Your task to perform on an android device: Open calendar and show me the fourth week of next month Image 0: 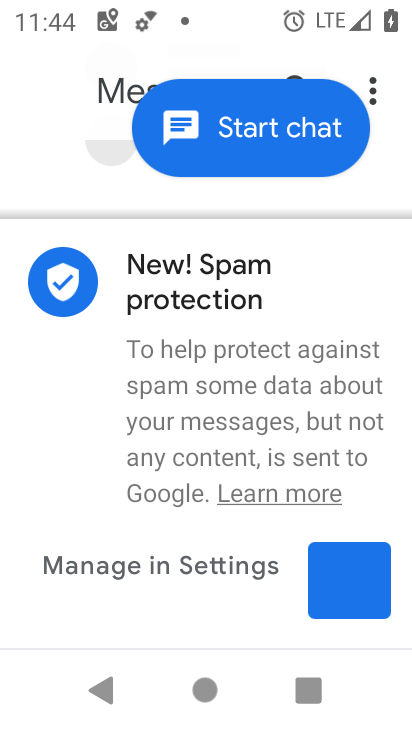
Step 0: press home button
Your task to perform on an android device: Open calendar and show me the fourth week of next month Image 1: 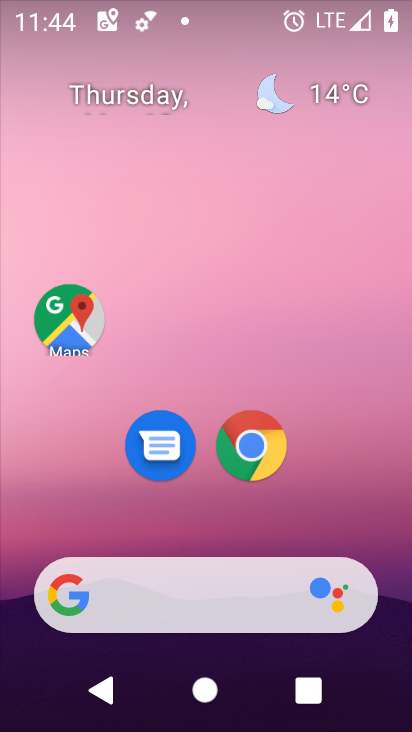
Step 1: drag from (229, 487) to (238, 153)
Your task to perform on an android device: Open calendar and show me the fourth week of next month Image 2: 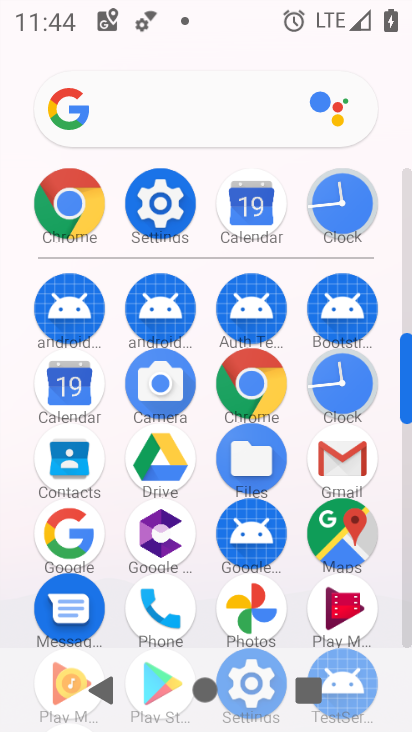
Step 2: click (60, 373)
Your task to perform on an android device: Open calendar and show me the fourth week of next month Image 3: 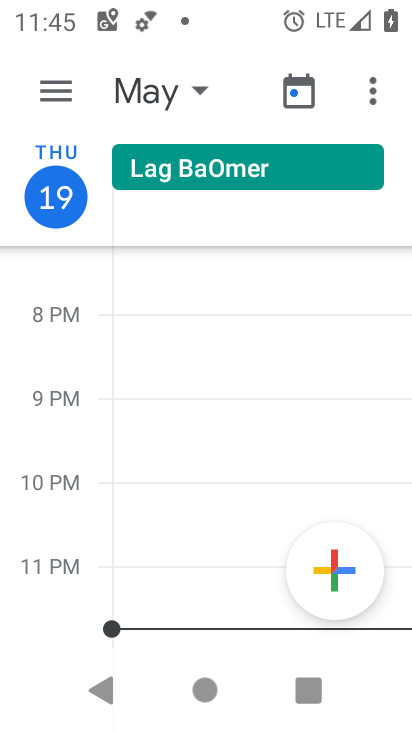
Step 3: click (214, 86)
Your task to perform on an android device: Open calendar and show me the fourth week of next month Image 4: 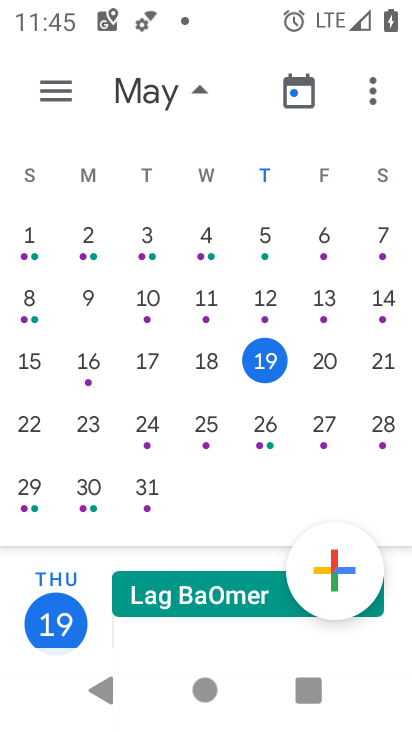
Step 4: drag from (300, 313) to (15, 298)
Your task to perform on an android device: Open calendar and show me the fourth week of next month Image 5: 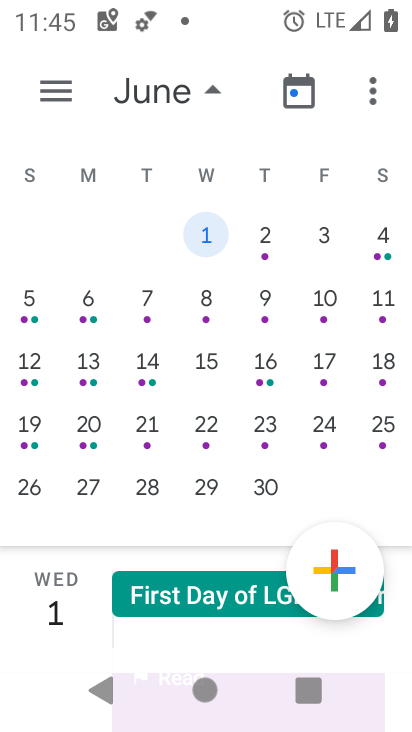
Step 5: click (34, 425)
Your task to perform on an android device: Open calendar and show me the fourth week of next month Image 6: 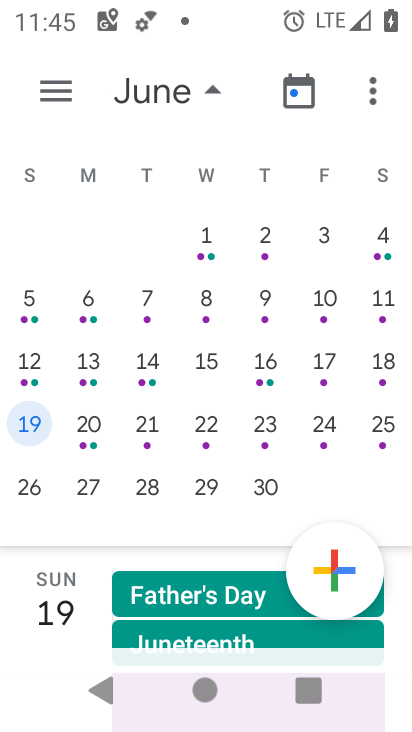
Step 6: click (194, 99)
Your task to perform on an android device: Open calendar and show me the fourth week of next month Image 7: 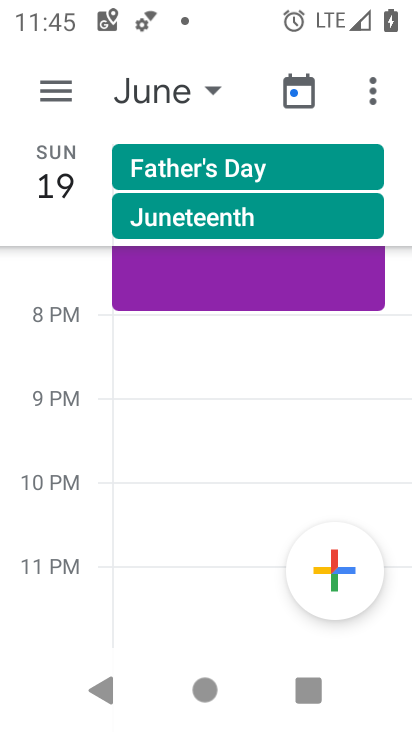
Step 7: task complete